Your task to perform on an android device: Open Google Image 0: 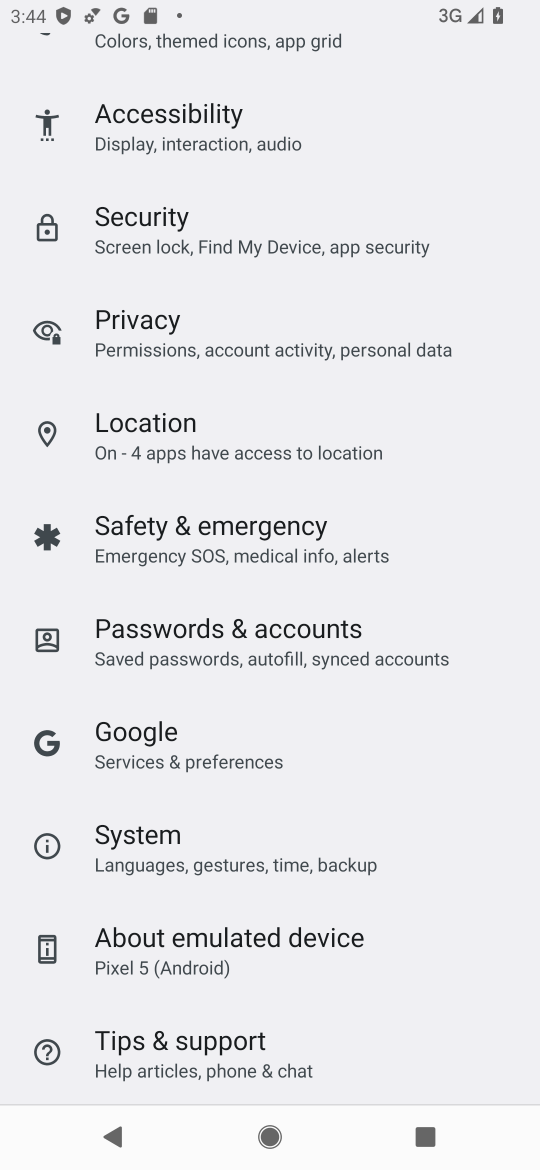
Step 0: press back button
Your task to perform on an android device: Open Google Image 1: 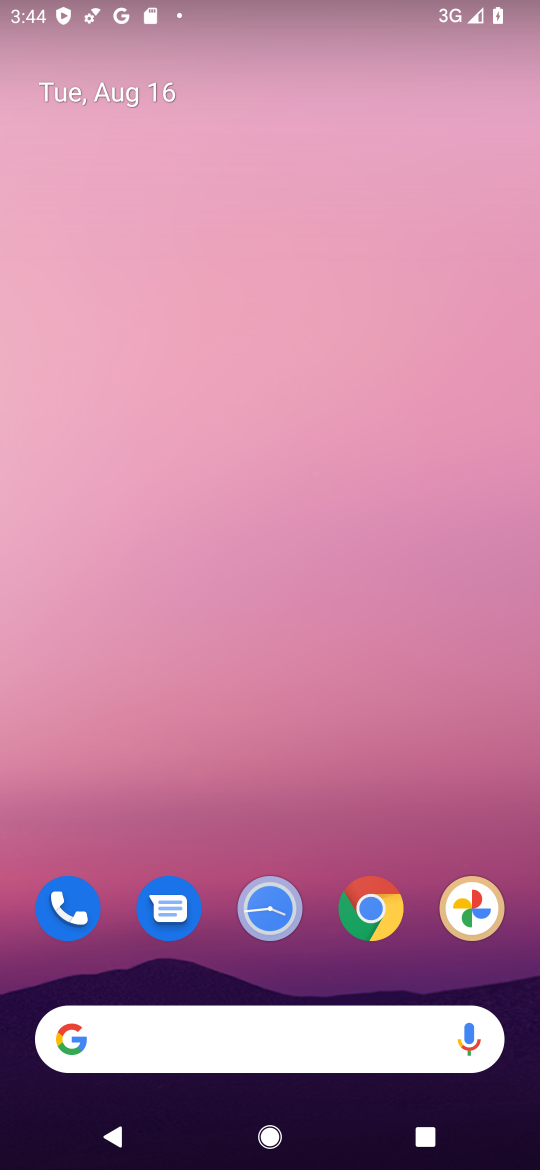
Step 1: drag from (233, 841) to (253, 29)
Your task to perform on an android device: Open Google Image 2: 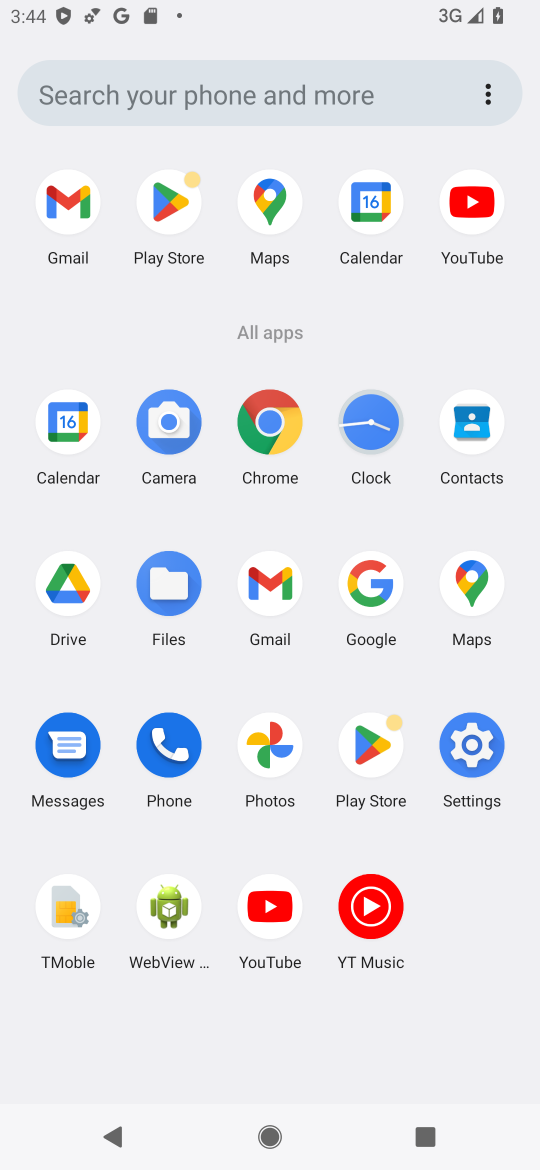
Step 2: click (377, 586)
Your task to perform on an android device: Open Google Image 3: 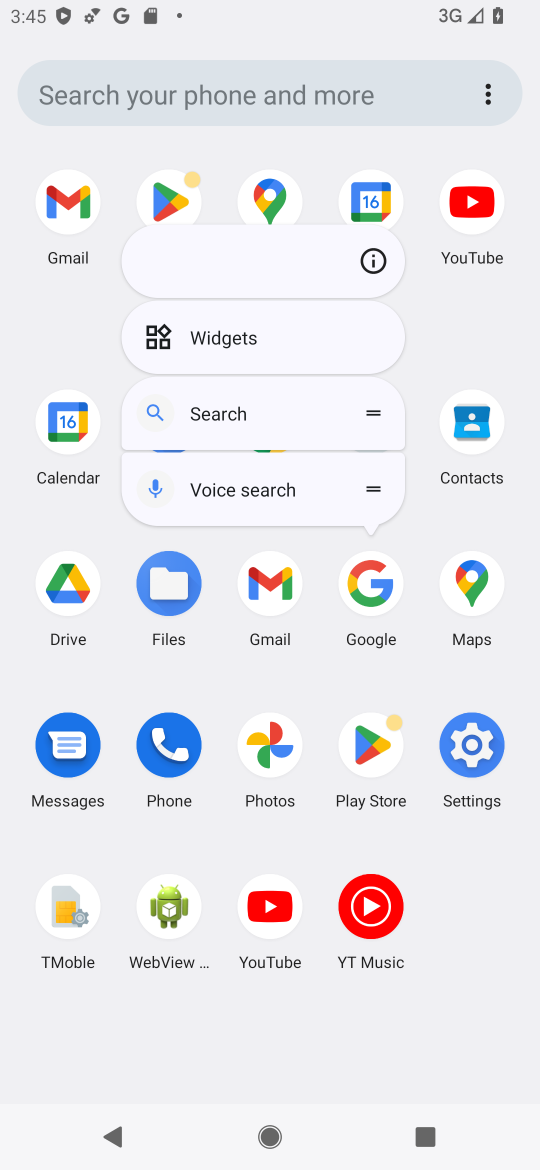
Step 3: click (375, 586)
Your task to perform on an android device: Open Google Image 4: 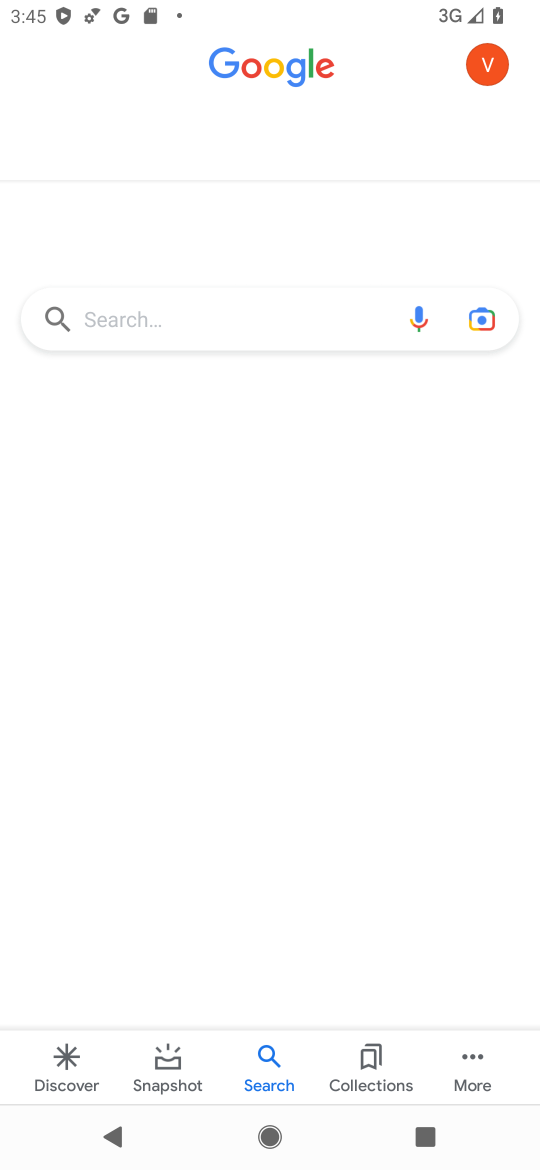
Step 4: task complete